Your task to perform on an android device: Go to accessibility settings Image 0: 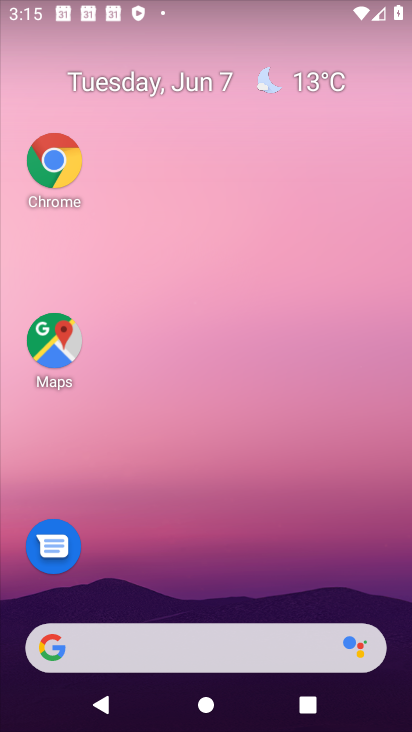
Step 0: drag from (217, 575) to (248, 232)
Your task to perform on an android device: Go to accessibility settings Image 1: 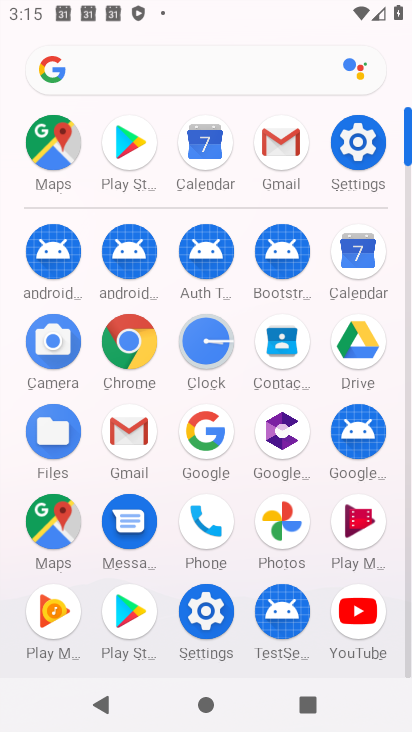
Step 1: click (200, 614)
Your task to perform on an android device: Go to accessibility settings Image 2: 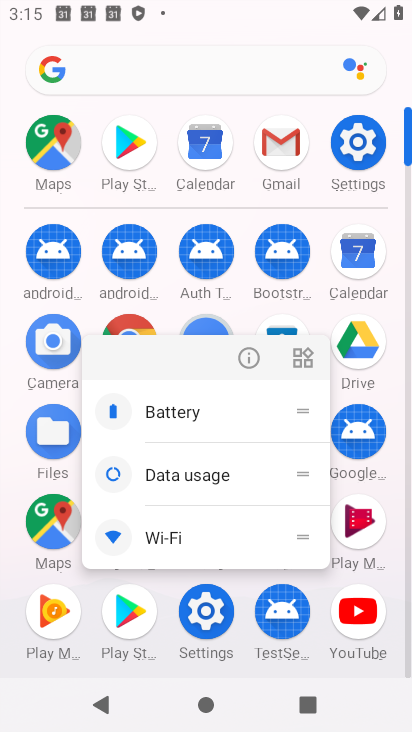
Step 2: click (239, 361)
Your task to perform on an android device: Go to accessibility settings Image 3: 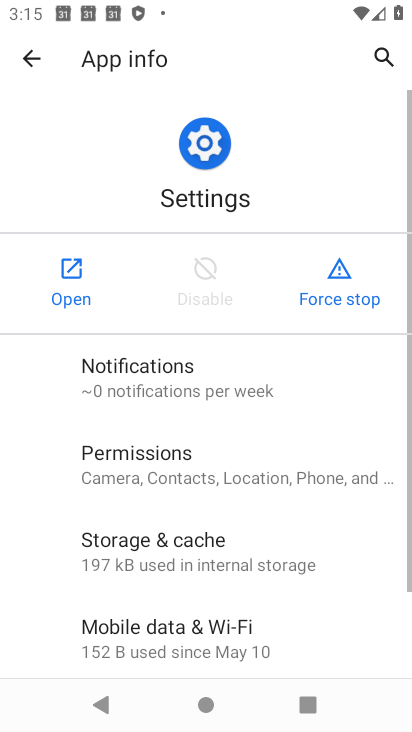
Step 3: click (97, 276)
Your task to perform on an android device: Go to accessibility settings Image 4: 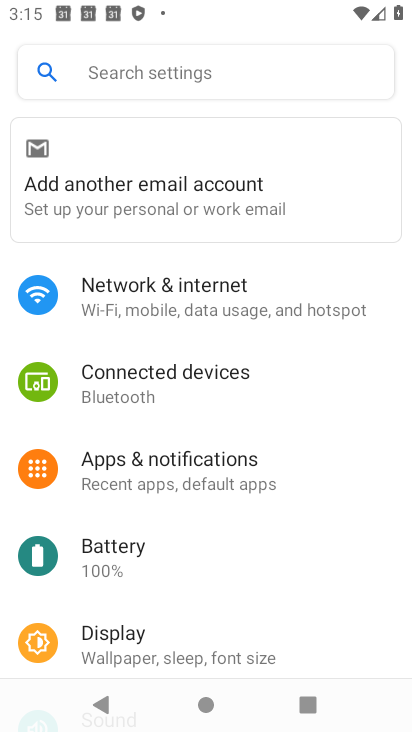
Step 4: drag from (198, 586) to (253, 179)
Your task to perform on an android device: Go to accessibility settings Image 5: 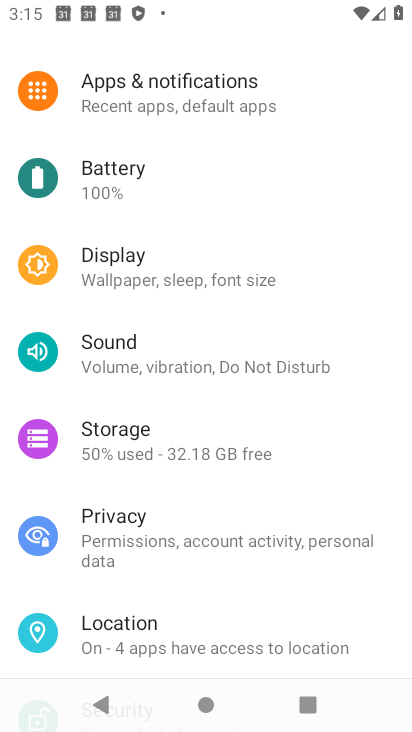
Step 5: drag from (230, 625) to (255, 291)
Your task to perform on an android device: Go to accessibility settings Image 6: 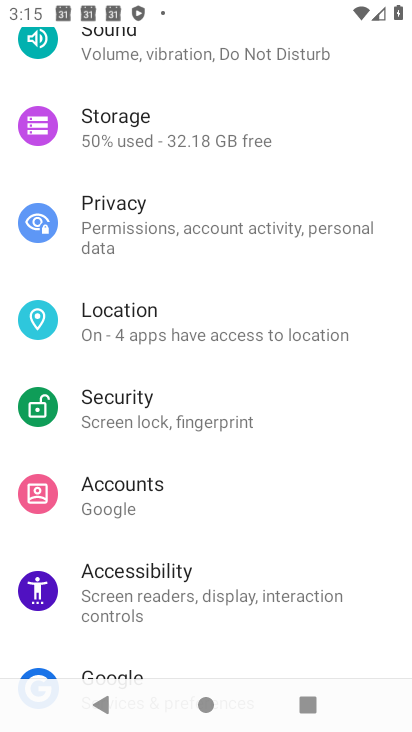
Step 6: drag from (195, 552) to (250, 230)
Your task to perform on an android device: Go to accessibility settings Image 7: 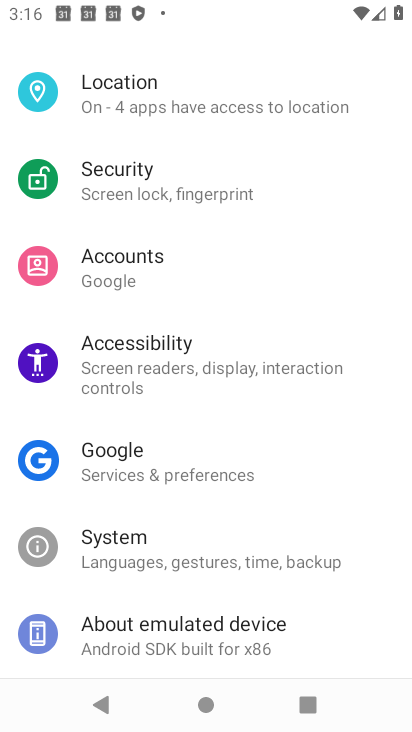
Step 7: click (170, 346)
Your task to perform on an android device: Go to accessibility settings Image 8: 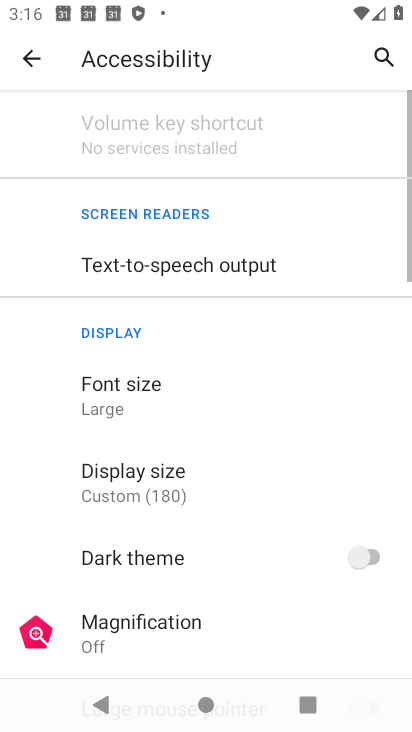
Step 8: task complete